Your task to perform on an android device: Open Wikipedia Image 0: 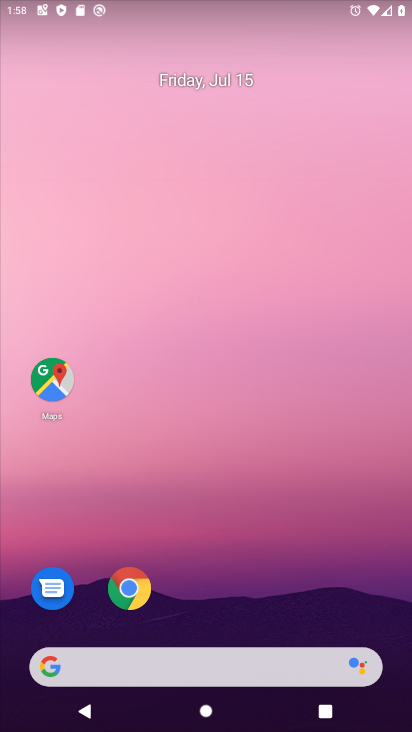
Step 0: drag from (207, 677) to (233, 30)
Your task to perform on an android device: Open Wikipedia Image 1: 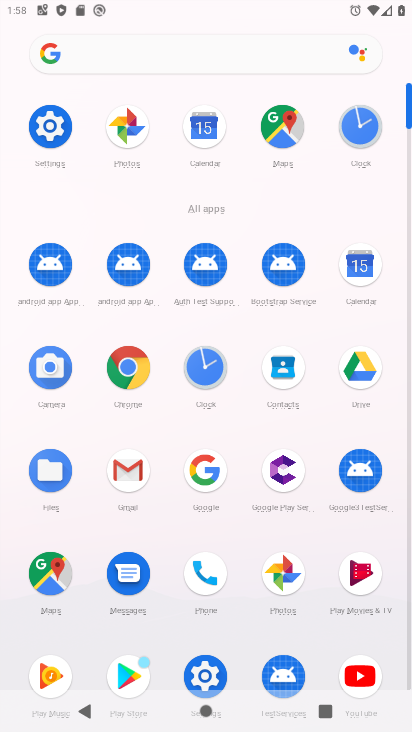
Step 1: click (130, 368)
Your task to perform on an android device: Open Wikipedia Image 2: 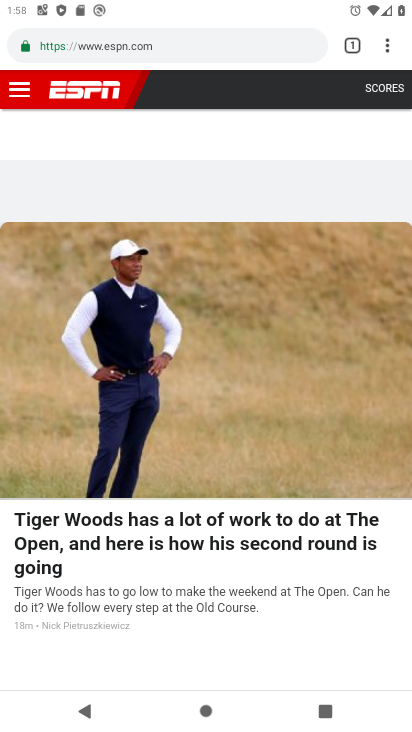
Step 2: click (286, 48)
Your task to perform on an android device: Open Wikipedia Image 3: 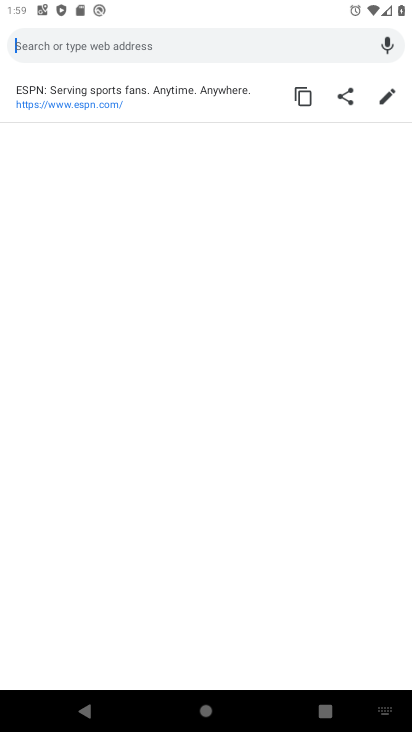
Step 3: type "Wikipedia"
Your task to perform on an android device: Open Wikipedia Image 4: 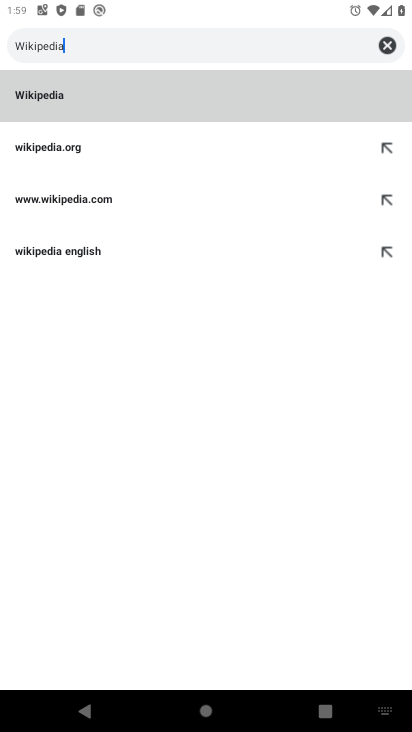
Step 4: click (55, 102)
Your task to perform on an android device: Open Wikipedia Image 5: 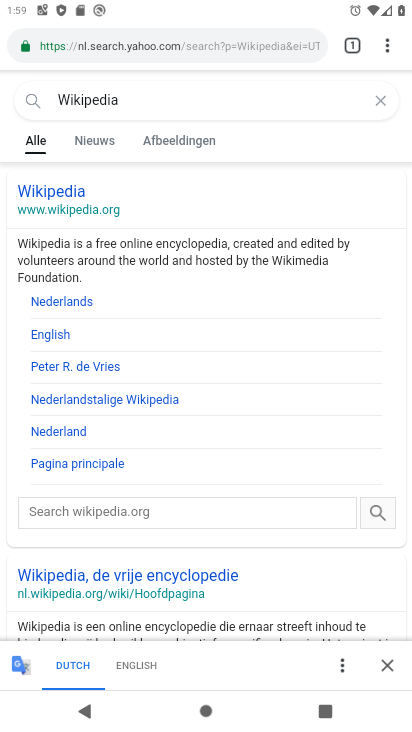
Step 5: click (41, 201)
Your task to perform on an android device: Open Wikipedia Image 6: 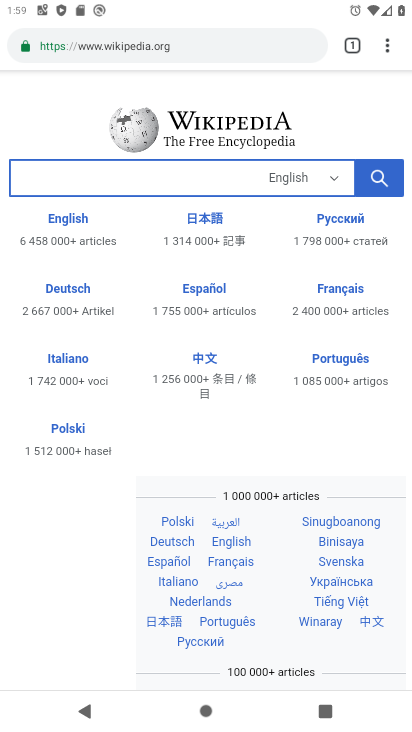
Step 6: task complete